Your task to perform on an android device: turn on translation in the chrome app Image 0: 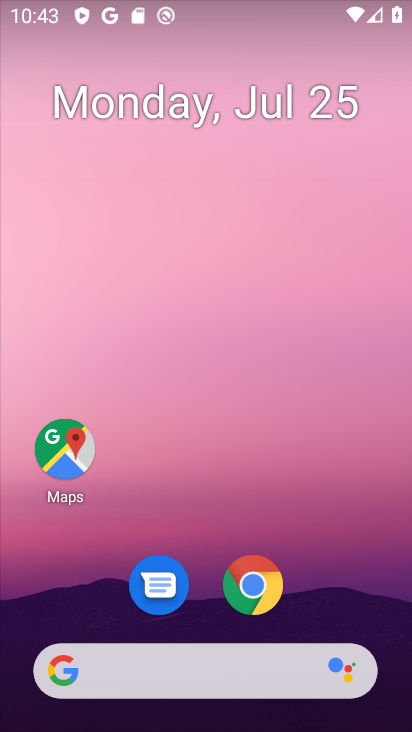
Step 0: click (264, 587)
Your task to perform on an android device: turn on translation in the chrome app Image 1: 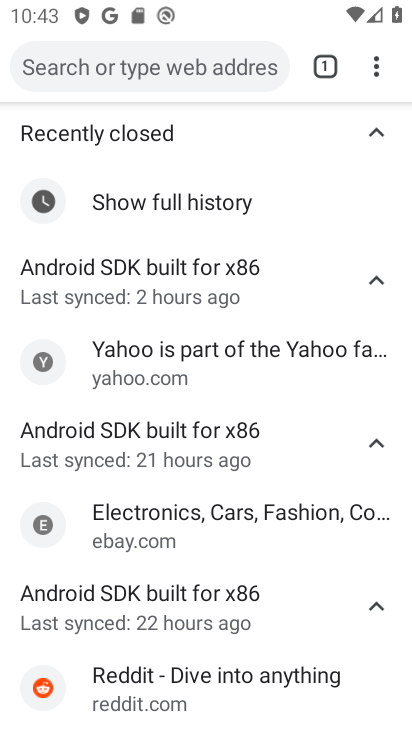
Step 1: click (372, 63)
Your task to perform on an android device: turn on translation in the chrome app Image 2: 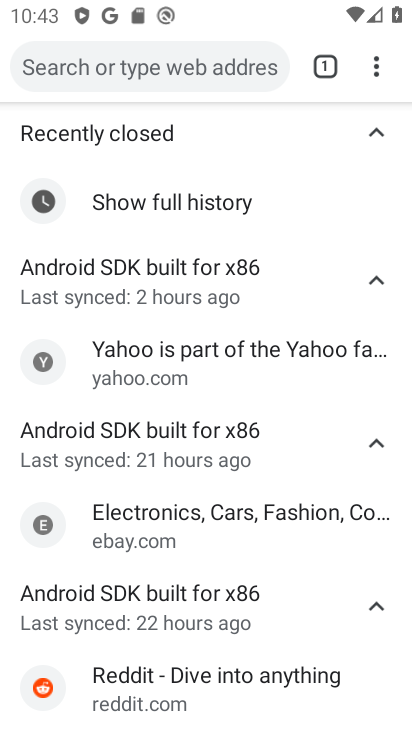
Step 2: click (374, 73)
Your task to perform on an android device: turn on translation in the chrome app Image 3: 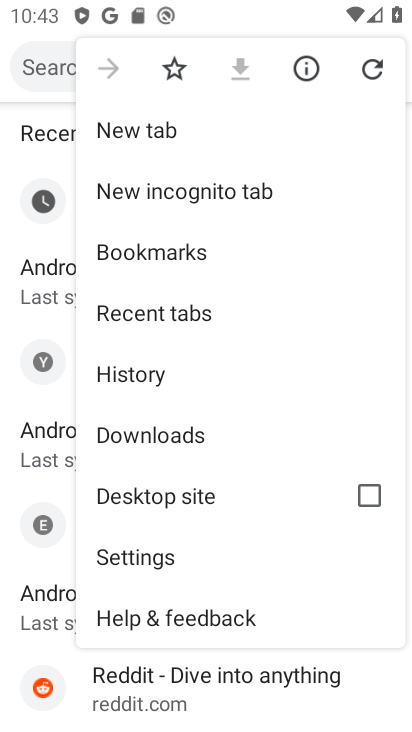
Step 3: click (163, 557)
Your task to perform on an android device: turn on translation in the chrome app Image 4: 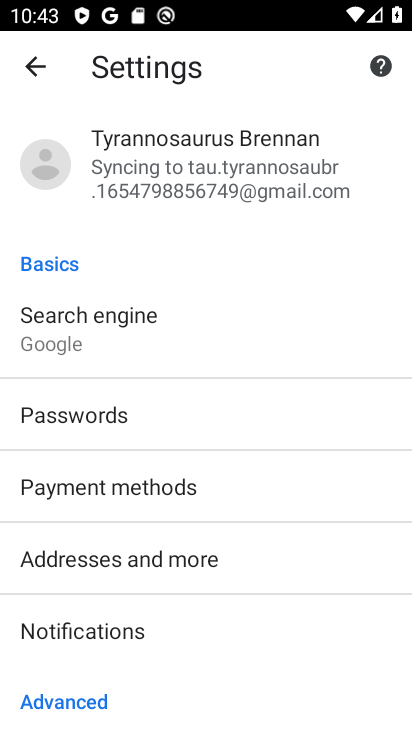
Step 4: drag from (223, 625) to (233, 276)
Your task to perform on an android device: turn on translation in the chrome app Image 5: 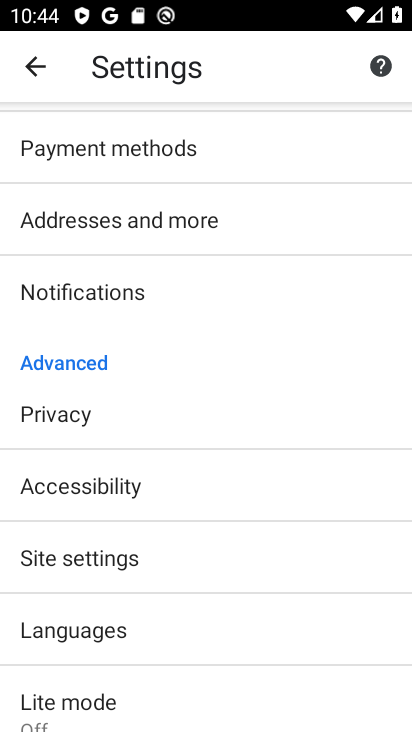
Step 5: click (237, 627)
Your task to perform on an android device: turn on translation in the chrome app Image 6: 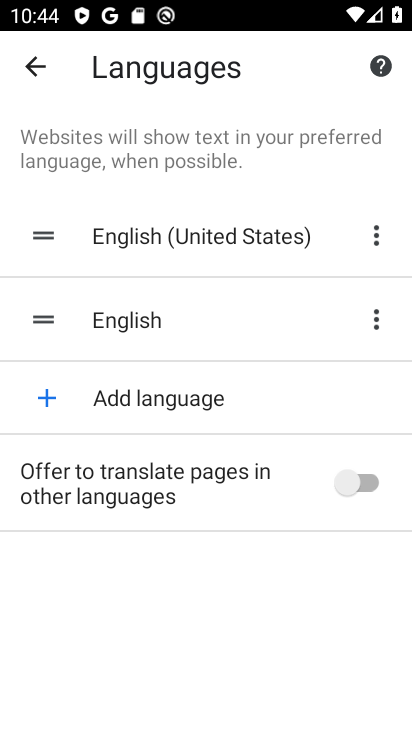
Step 6: click (366, 476)
Your task to perform on an android device: turn on translation in the chrome app Image 7: 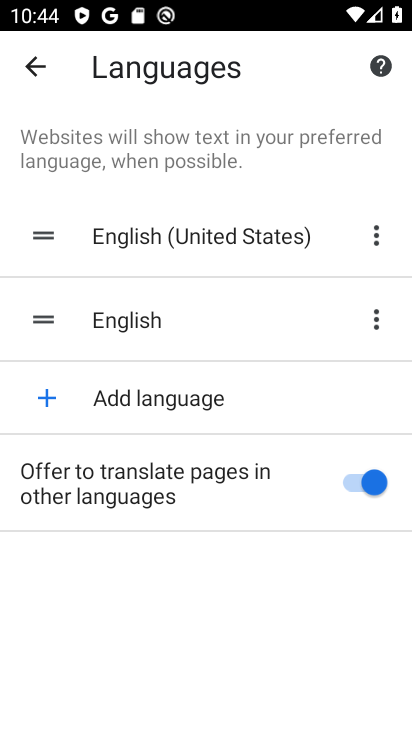
Step 7: task complete